Your task to perform on an android device: Open the Play Movies app and select the watchlist tab. Image 0: 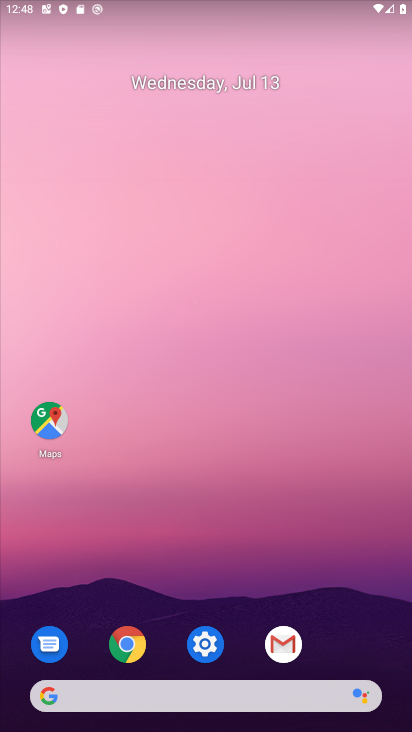
Step 0: press home button
Your task to perform on an android device: Open the Play Movies app and select the watchlist tab. Image 1: 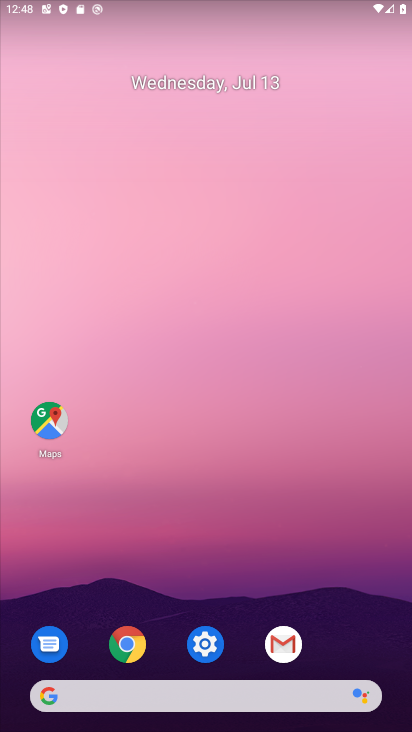
Step 1: drag from (277, 672) to (304, 94)
Your task to perform on an android device: Open the Play Movies app and select the watchlist tab. Image 2: 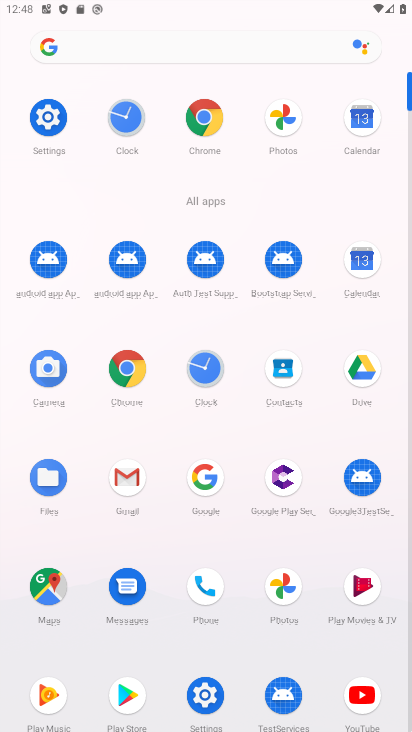
Step 2: click (351, 599)
Your task to perform on an android device: Open the Play Movies app and select the watchlist tab. Image 3: 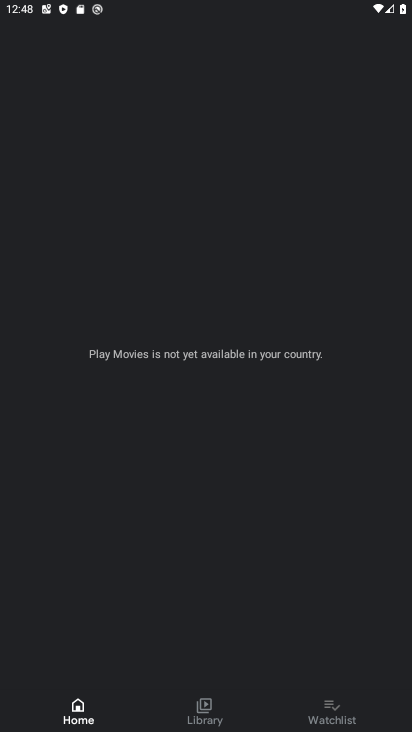
Step 3: click (327, 719)
Your task to perform on an android device: Open the Play Movies app and select the watchlist tab. Image 4: 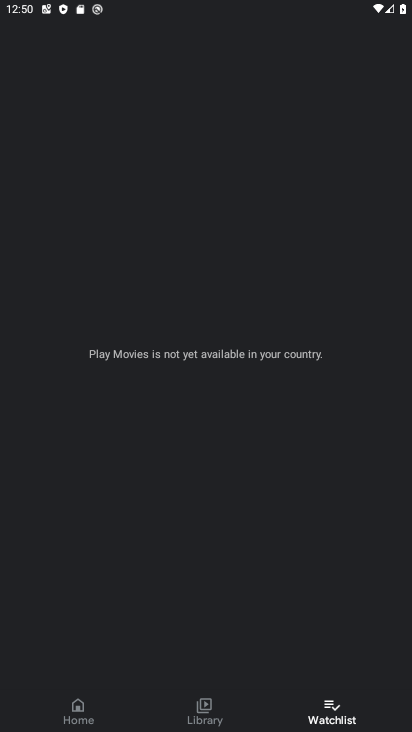
Step 4: task complete